Your task to perform on an android device: Do I have any events today? Image 0: 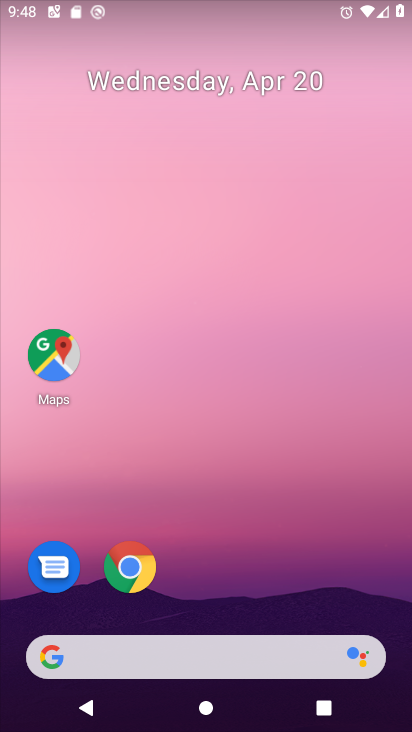
Step 0: drag from (296, 598) to (327, 303)
Your task to perform on an android device: Do I have any events today? Image 1: 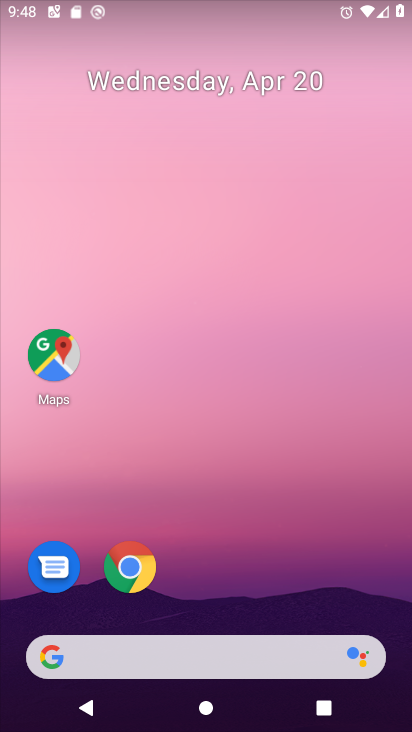
Step 1: drag from (346, 585) to (368, 200)
Your task to perform on an android device: Do I have any events today? Image 2: 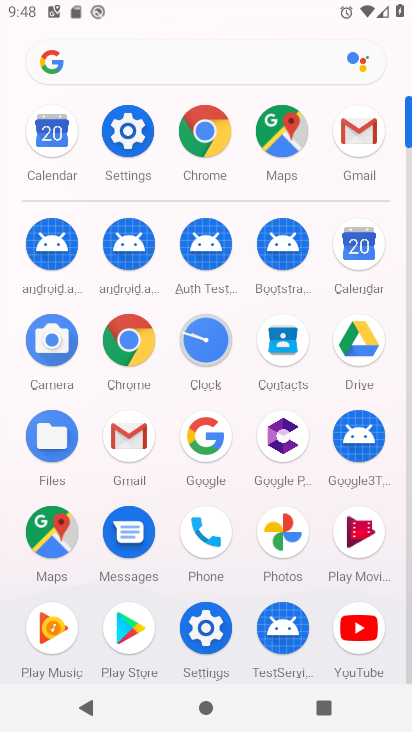
Step 2: click (360, 244)
Your task to perform on an android device: Do I have any events today? Image 3: 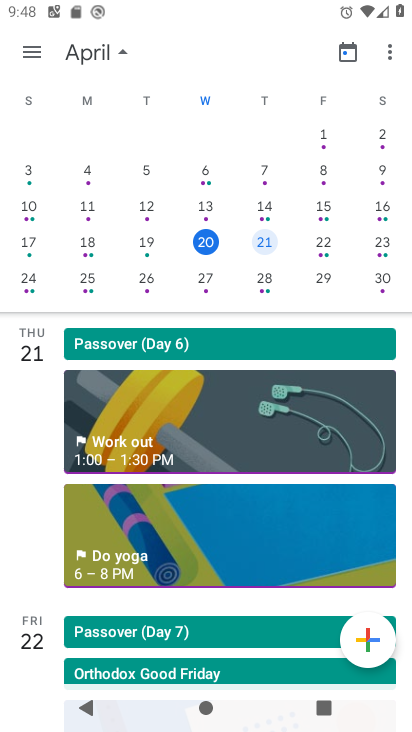
Step 3: click (259, 397)
Your task to perform on an android device: Do I have any events today? Image 4: 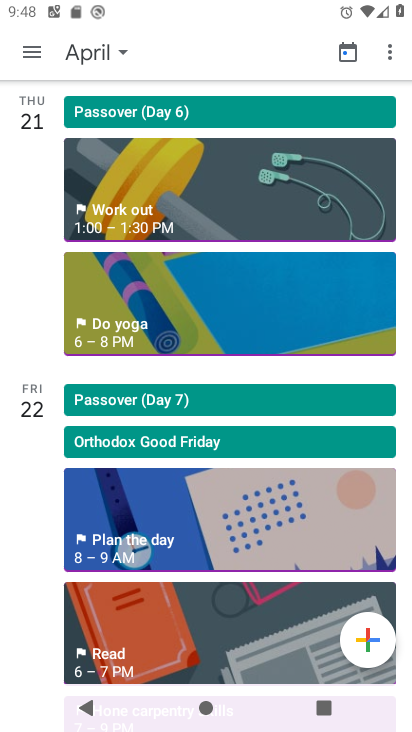
Step 4: task complete